Your task to perform on an android device: set the stopwatch Image 0: 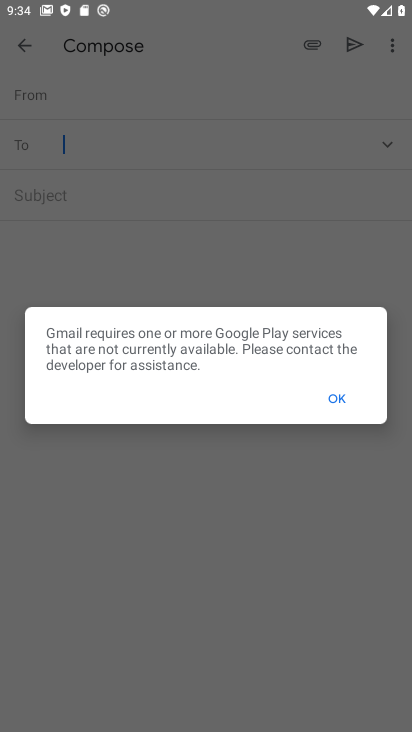
Step 0: press home button
Your task to perform on an android device: set the stopwatch Image 1: 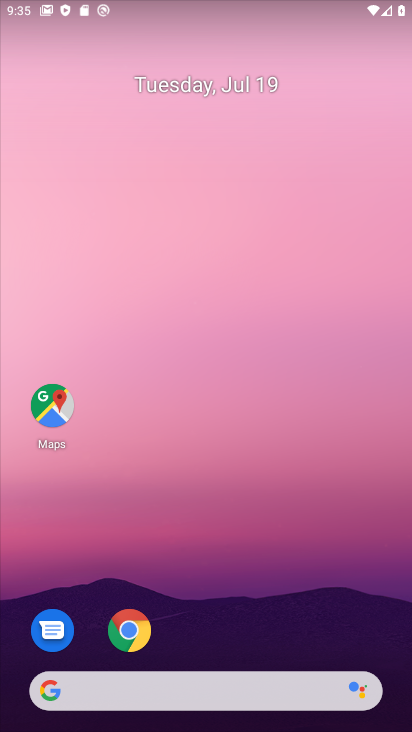
Step 1: drag from (209, 656) to (226, 112)
Your task to perform on an android device: set the stopwatch Image 2: 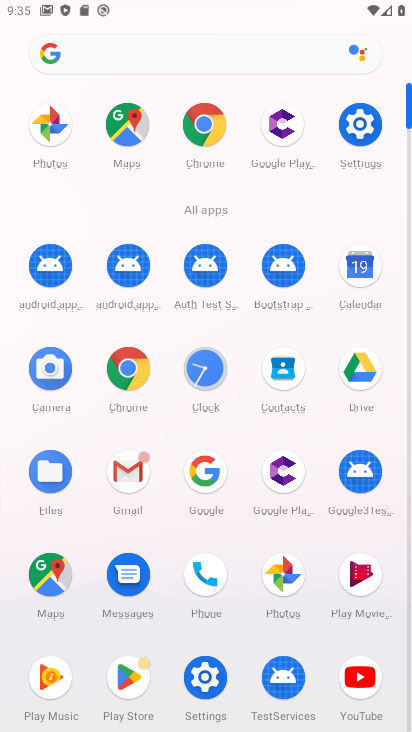
Step 2: click (206, 376)
Your task to perform on an android device: set the stopwatch Image 3: 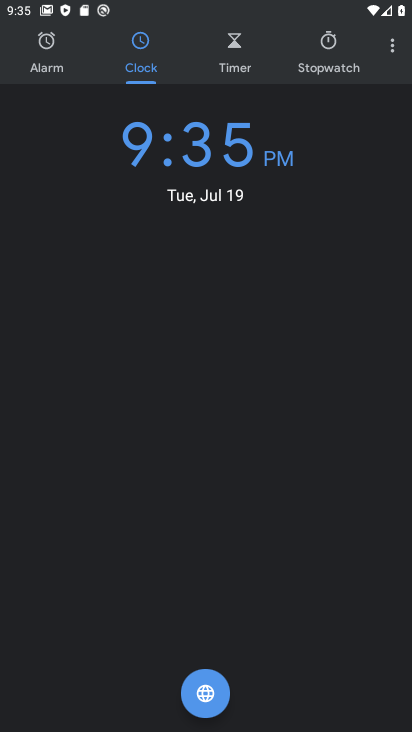
Step 3: click (331, 50)
Your task to perform on an android device: set the stopwatch Image 4: 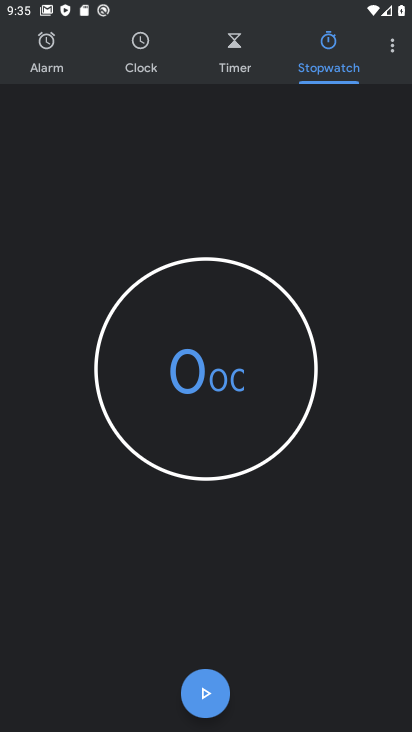
Step 4: click (209, 683)
Your task to perform on an android device: set the stopwatch Image 5: 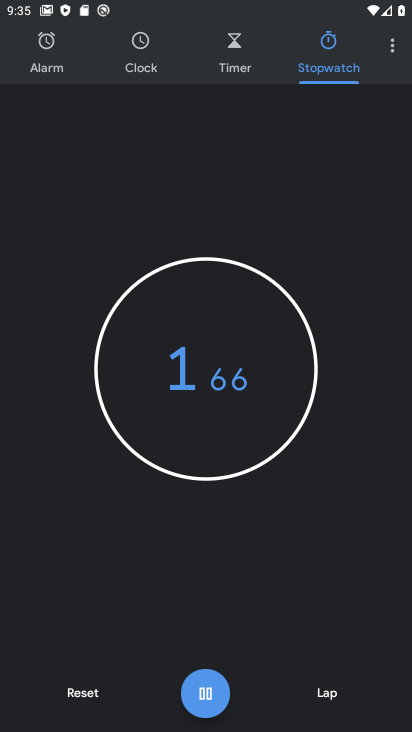
Step 5: click (209, 683)
Your task to perform on an android device: set the stopwatch Image 6: 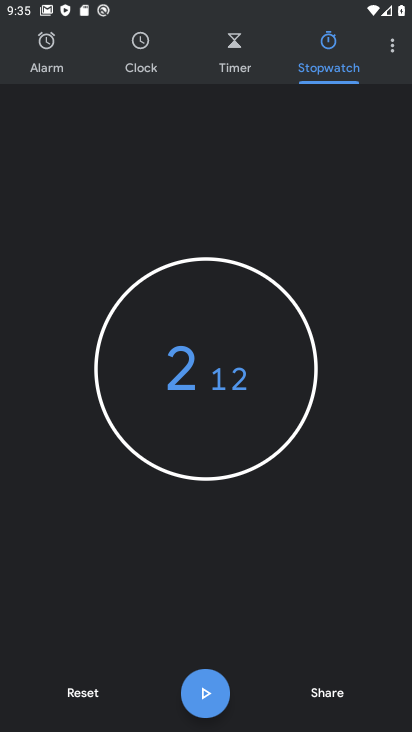
Step 6: task complete